Your task to perform on an android device: turn on data saver in the chrome app Image 0: 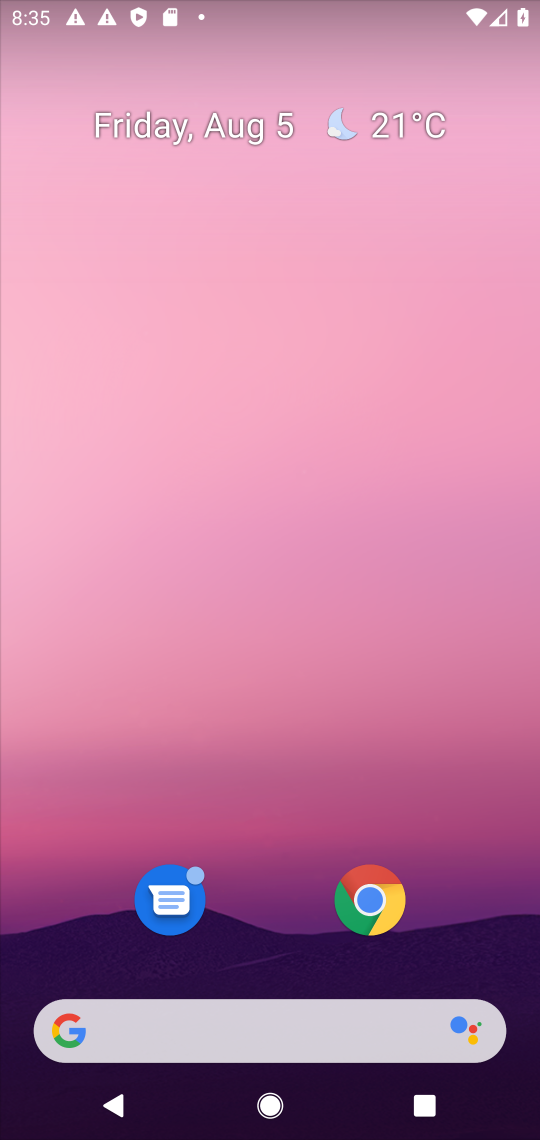
Step 0: drag from (308, 930) to (317, 62)
Your task to perform on an android device: turn on data saver in the chrome app Image 1: 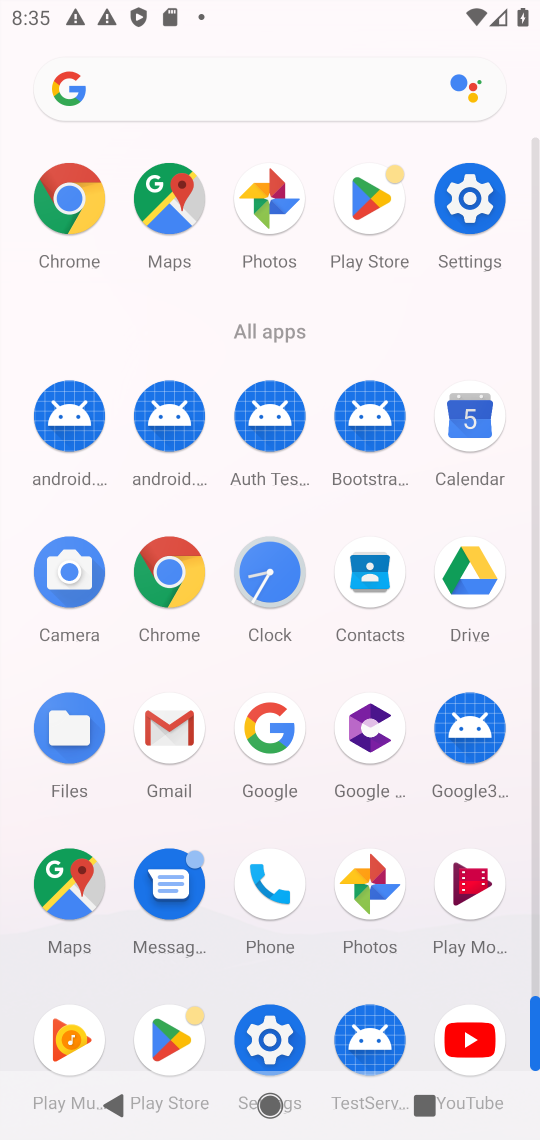
Step 1: click (172, 565)
Your task to perform on an android device: turn on data saver in the chrome app Image 2: 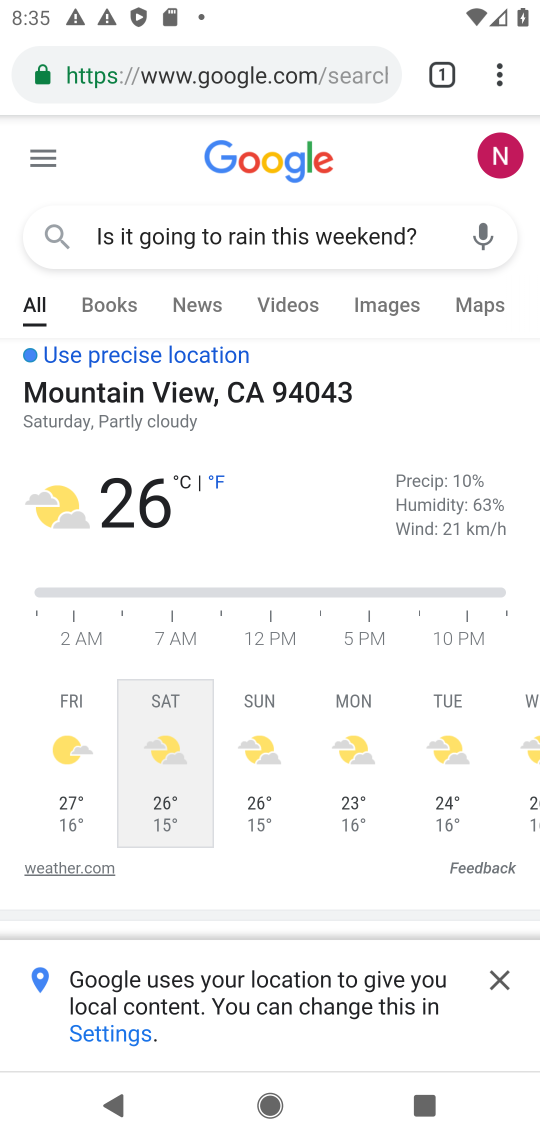
Step 2: drag from (502, 78) to (251, 825)
Your task to perform on an android device: turn on data saver in the chrome app Image 3: 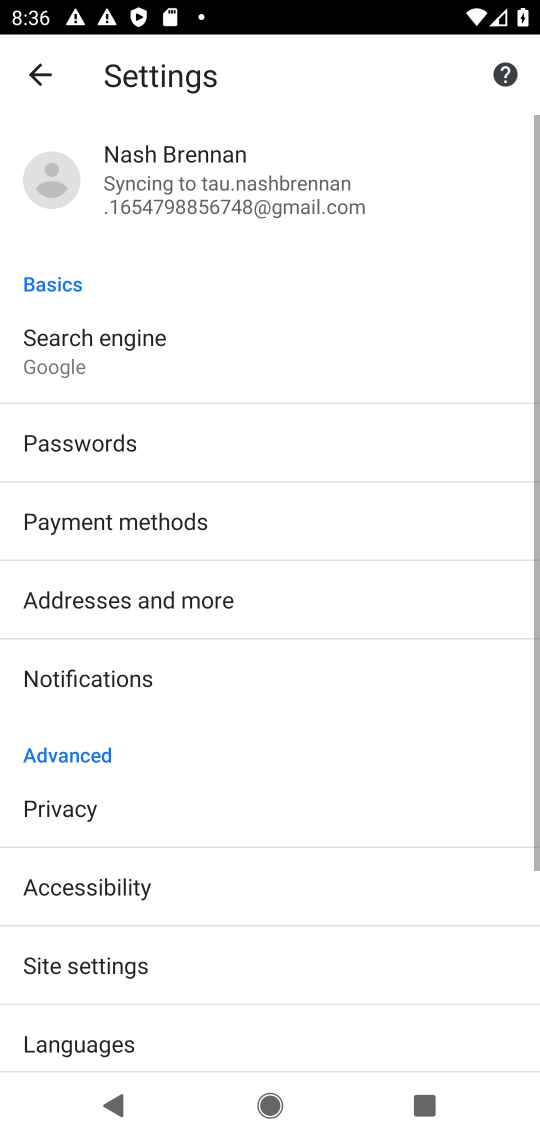
Step 3: drag from (294, 986) to (327, 357)
Your task to perform on an android device: turn on data saver in the chrome app Image 4: 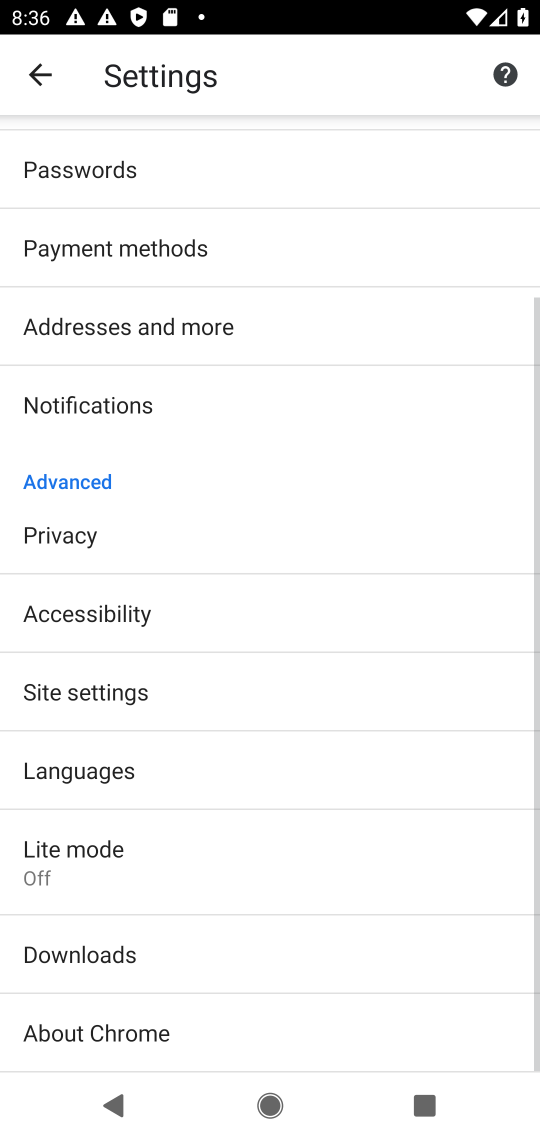
Step 4: click (64, 863)
Your task to perform on an android device: turn on data saver in the chrome app Image 5: 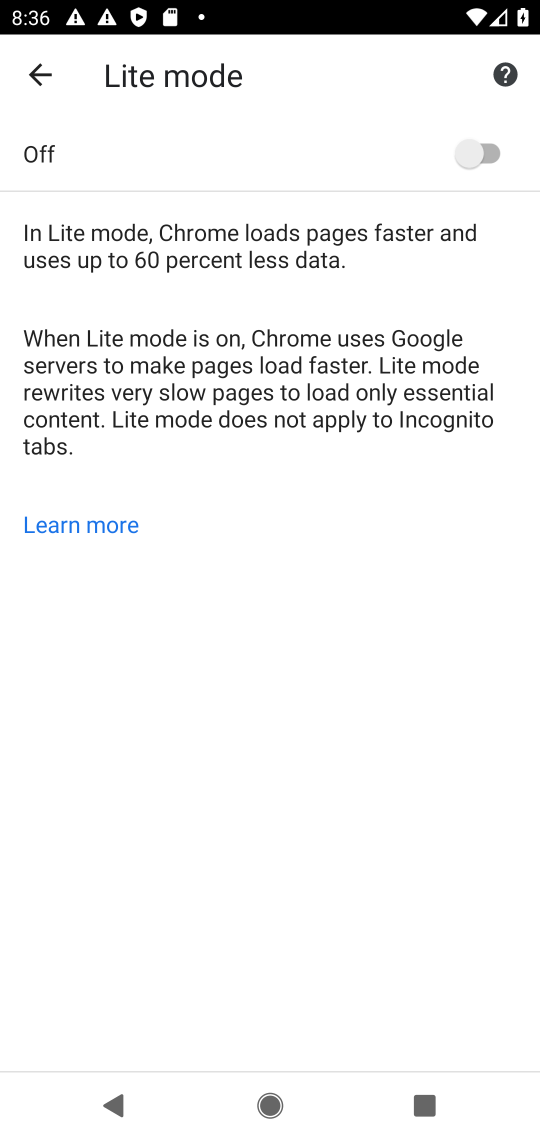
Step 5: click (352, 144)
Your task to perform on an android device: turn on data saver in the chrome app Image 6: 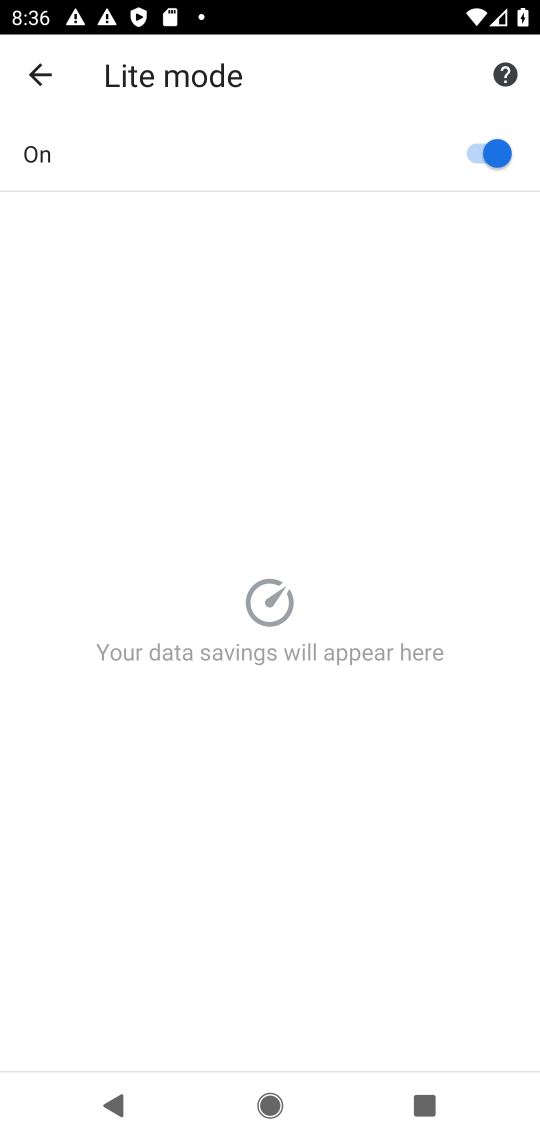
Step 6: task complete